Your task to perform on an android device: Go to Google Image 0: 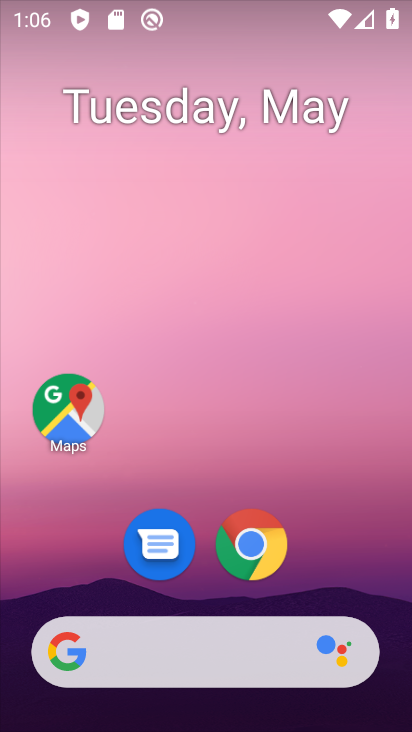
Step 0: drag from (157, 731) to (99, 60)
Your task to perform on an android device: Go to Google Image 1: 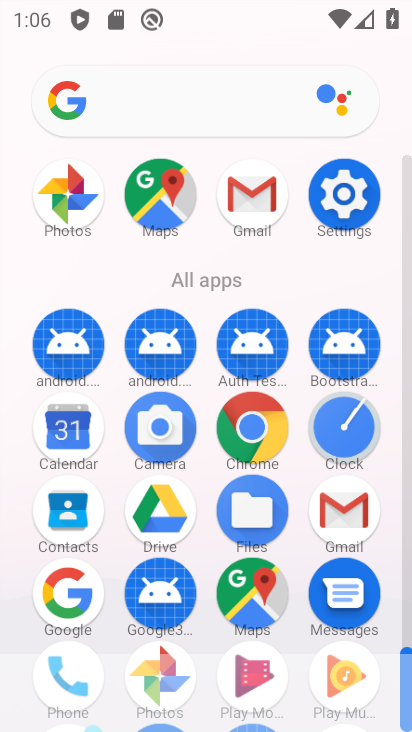
Step 1: click (80, 611)
Your task to perform on an android device: Go to Google Image 2: 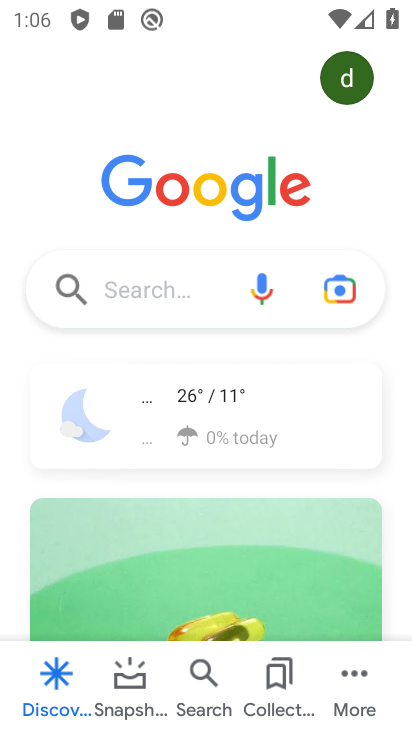
Step 2: task complete